Your task to perform on an android device: Go to notification settings Image 0: 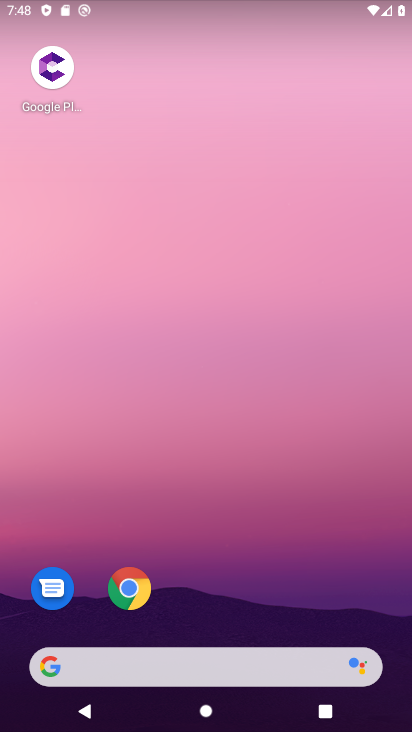
Step 0: drag from (307, 605) to (236, 13)
Your task to perform on an android device: Go to notification settings Image 1: 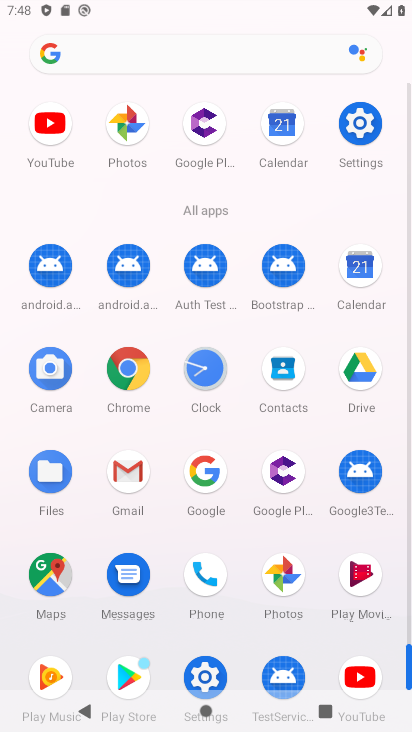
Step 1: click (349, 136)
Your task to perform on an android device: Go to notification settings Image 2: 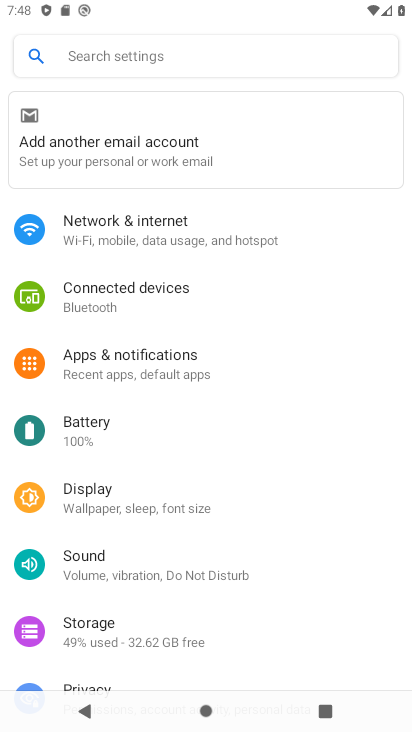
Step 2: click (212, 374)
Your task to perform on an android device: Go to notification settings Image 3: 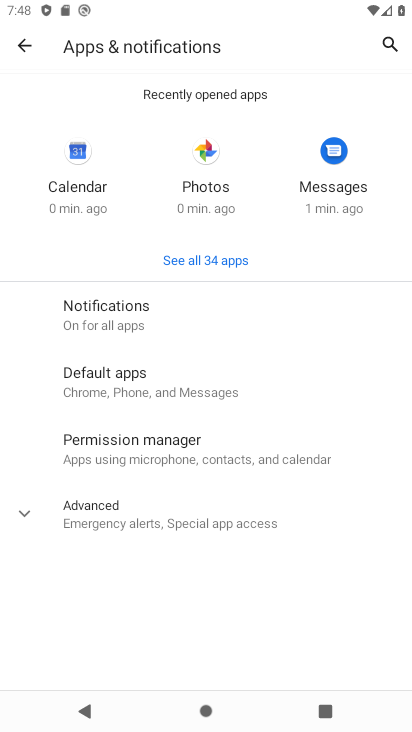
Step 3: click (146, 309)
Your task to perform on an android device: Go to notification settings Image 4: 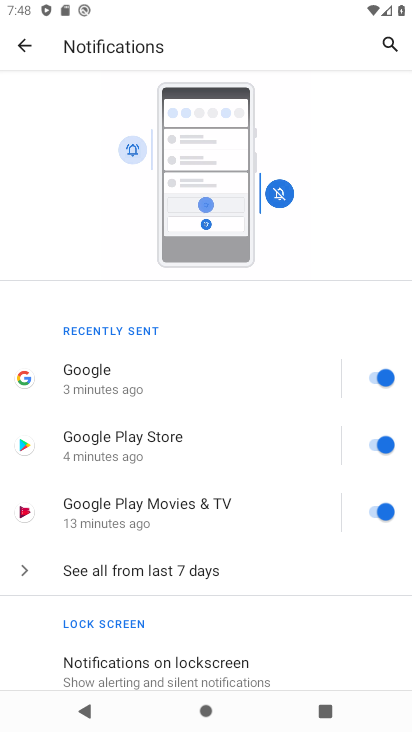
Step 4: task complete